Your task to perform on an android device: Open calendar and show me the first week of next month Image 0: 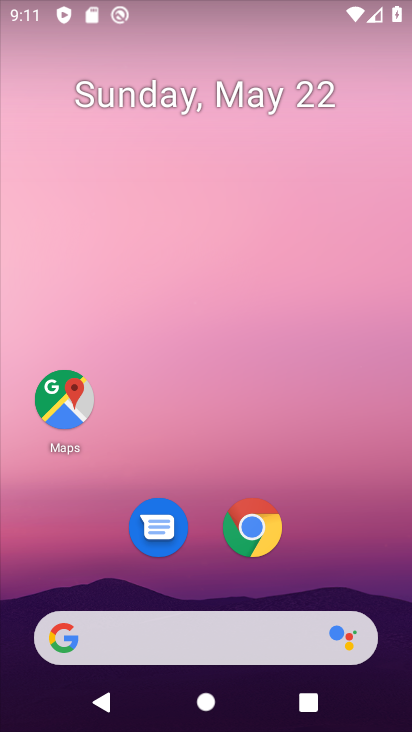
Step 0: drag from (368, 549) to (315, 74)
Your task to perform on an android device: Open calendar and show me the first week of next month Image 1: 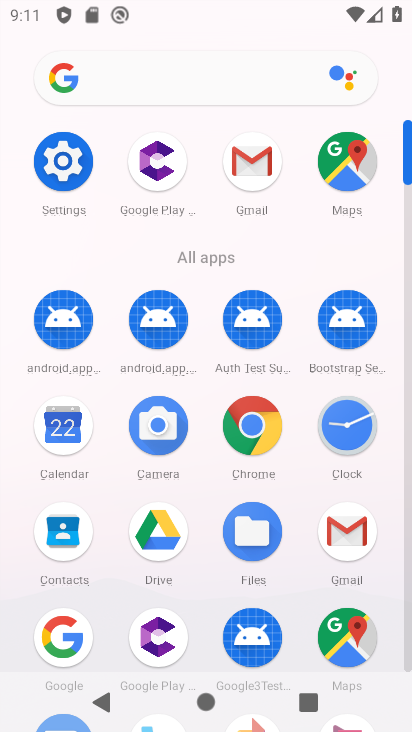
Step 1: click (246, 191)
Your task to perform on an android device: Open calendar and show me the first week of next month Image 2: 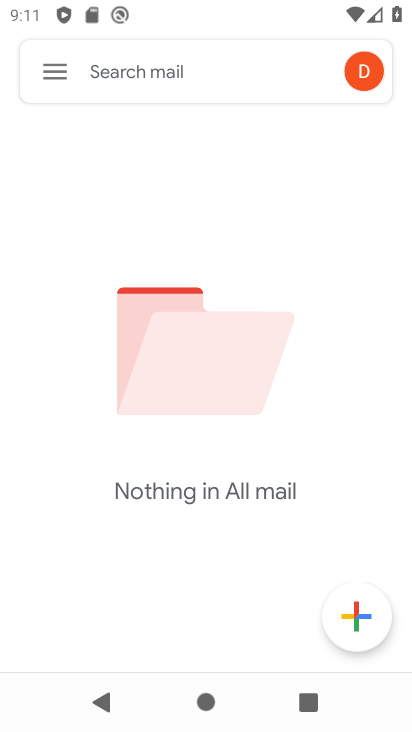
Step 2: click (61, 83)
Your task to perform on an android device: Open calendar and show me the first week of next month Image 3: 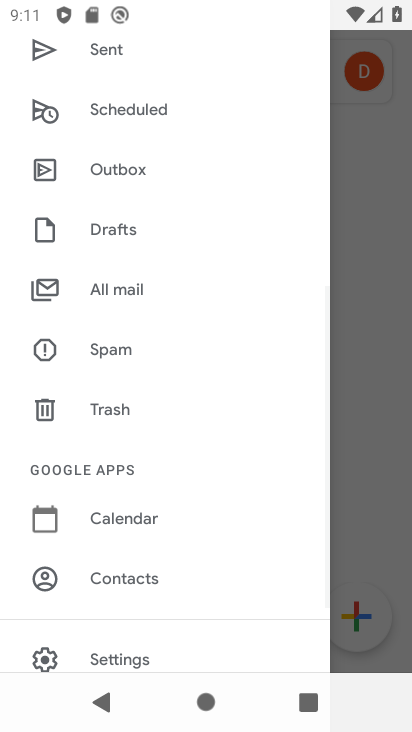
Step 3: click (371, 292)
Your task to perform on an android device: Open calendar and show me the first week of next month Image 4: 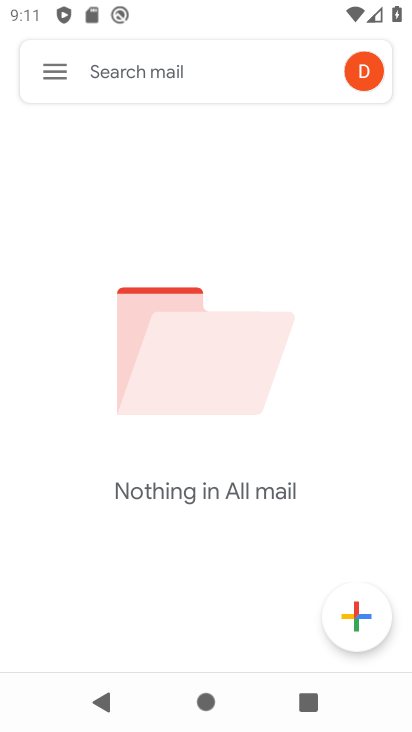
Step 4: press home button
Your task to perform on an android device: Open calendar and show me the first week of next month Image 5: 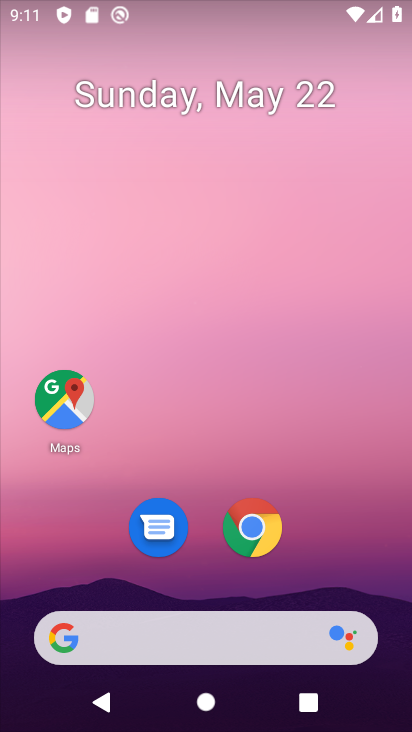
Step 5: drag from (328, 547) to (260, 109)
Your task to perform on an android device: Open calendar and show me the first week of next month Image 6: 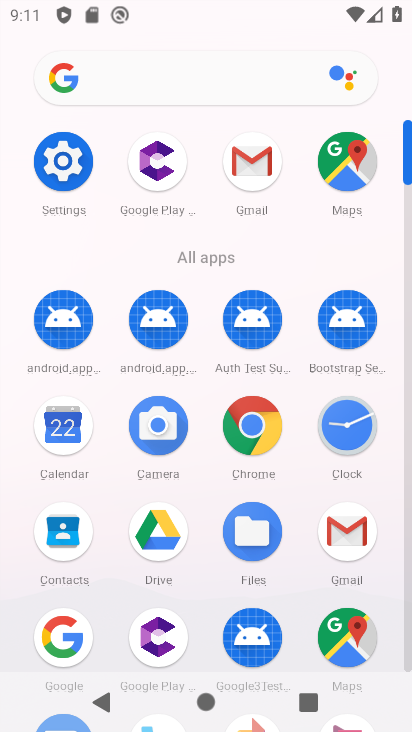
Step 6: click (78, 461)
Your task to perform on an android device: Open calendar and show me the first week of next month Image 7: 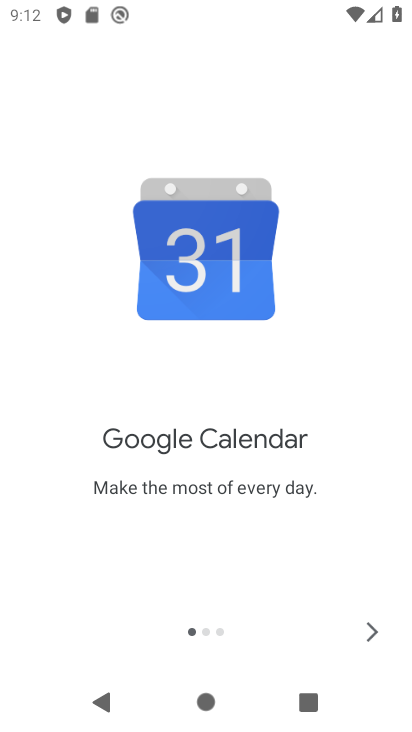
Step 7: click (364, 646)
Your task to perform on an android device: Open calendar and show me the first week of next month Image 8: 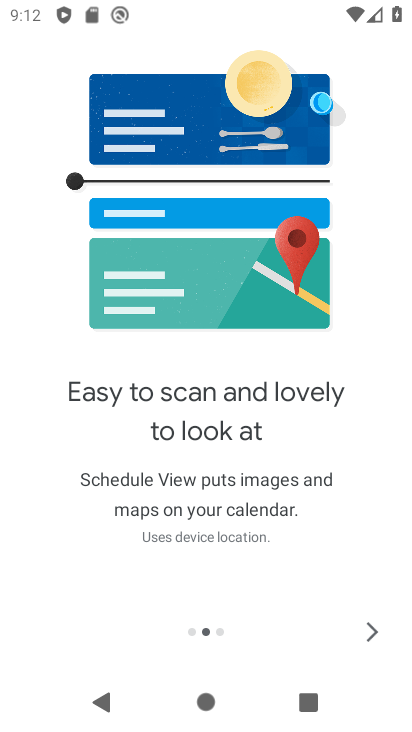
Step 8: click (364, 646)
Your task to perform on an android device: Open calendar and show me the first week of next month Image 9: 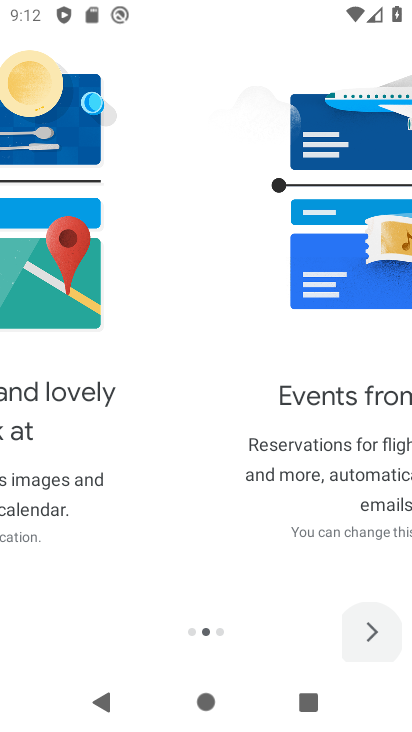
Step 9: click (364, 646)
Your task to perform on an android device: Open calendar and show me the first week of next month Image 10: 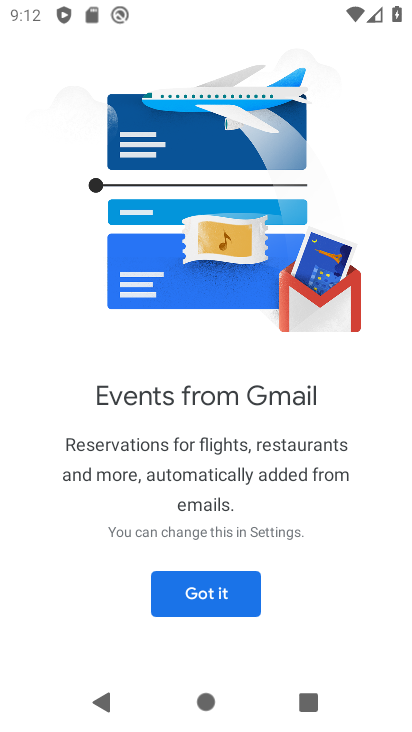
Step 10: click (233, 609)
Your task to perform on an android device: Open calendar and show me the first week of next month Image 11: 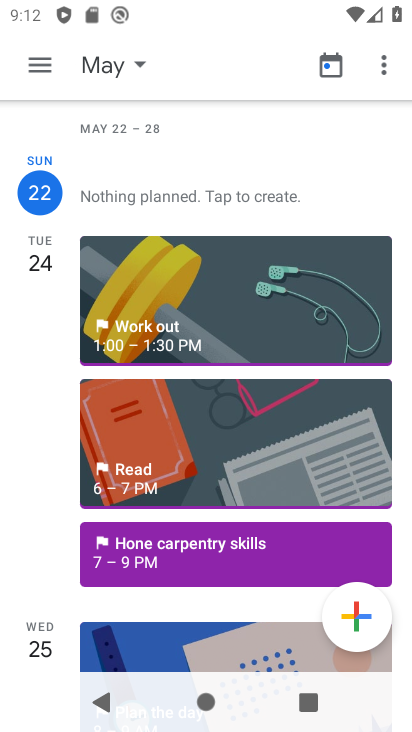
Step 11: click (98, 82)
Your task to perform on an android device: Open calendar and show me the first week of next month Image 12: 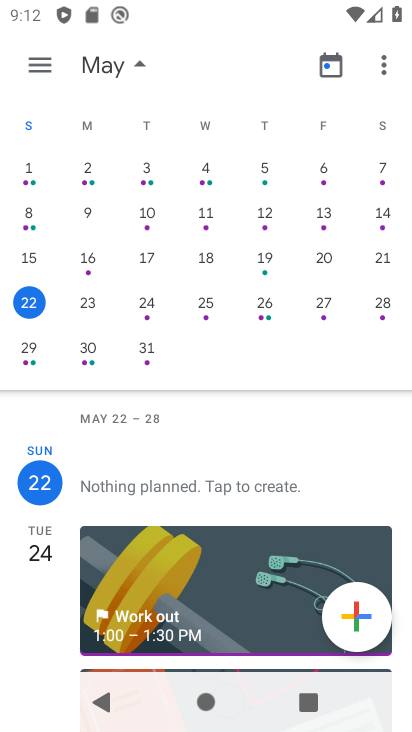
Step 12: drag from (374, 352) to (15, 276)
Your task to perform on an android device: Open calendar and show me the first week of next month Image 13: 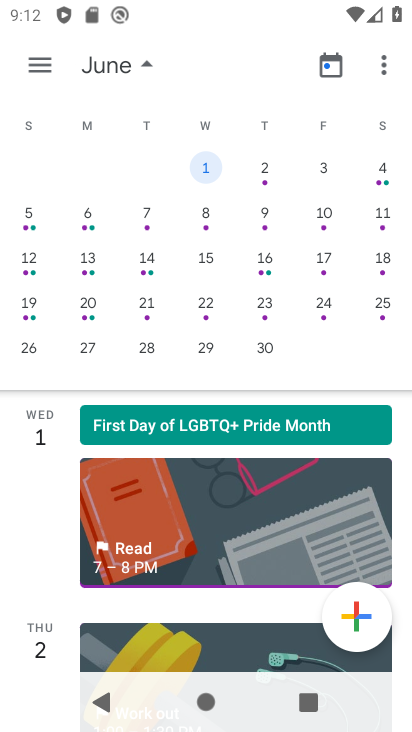
Step 13: click (209, 211)
Your task to perform on an android device: Open calendar and show me the first week of next month Image 14: 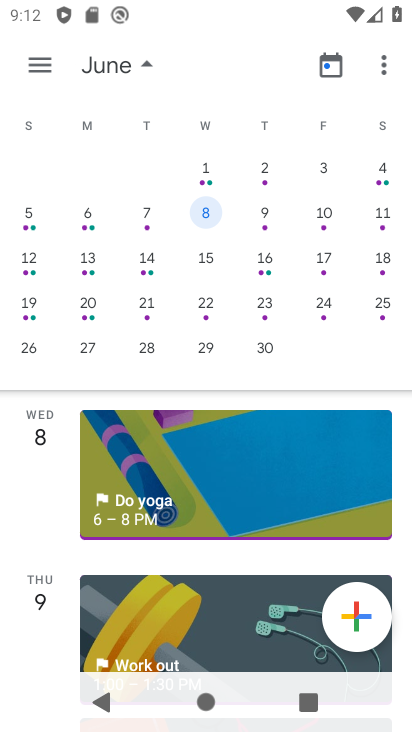
Step 14: task complete